Your task to perform on an android device: Check the news Image 0: 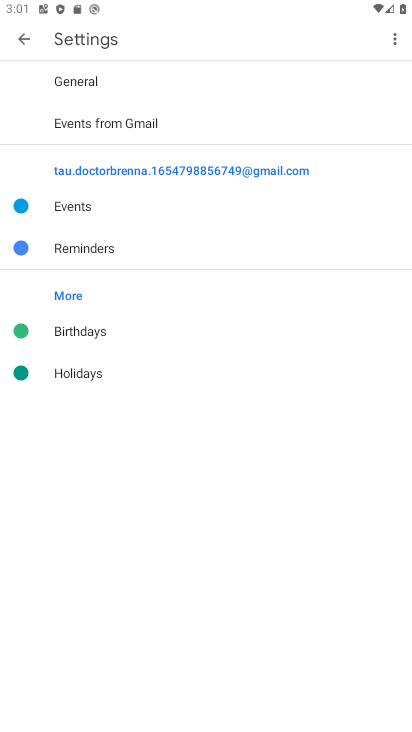
Step 0: press home button
Your task to perform on an android device: Check the news Image 1: 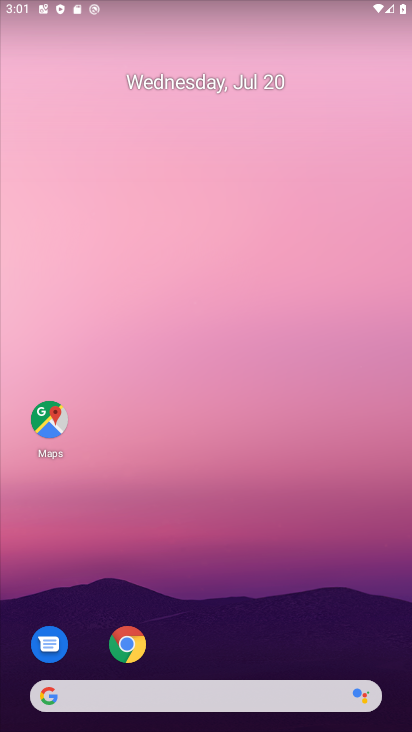
Step 1: drag from (207, 698) to (257, 215)
Your task to perform on an android device: Check the news Image 2: 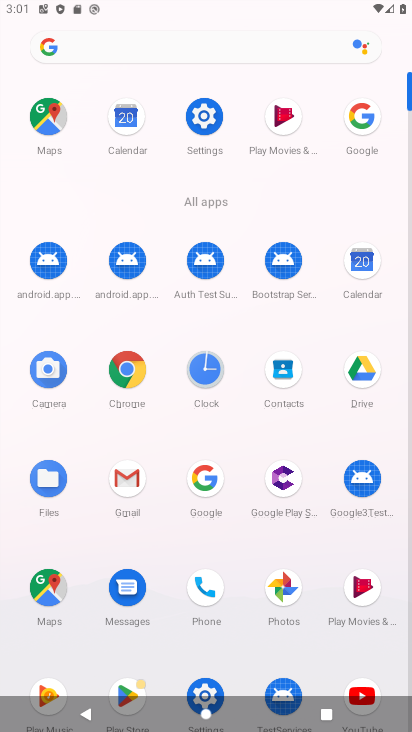
Step 2: click (209, 475)
Your task to perform on an android device: Check the news Image 3: 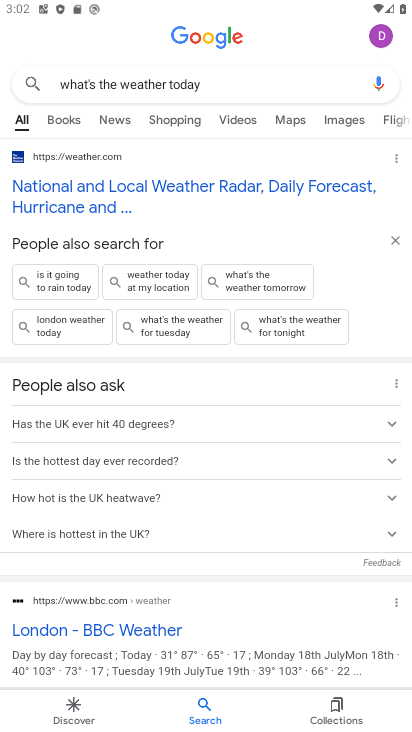
Step 3: click (212, 77)
Your task to perform on an android device: Check the news Image 4: 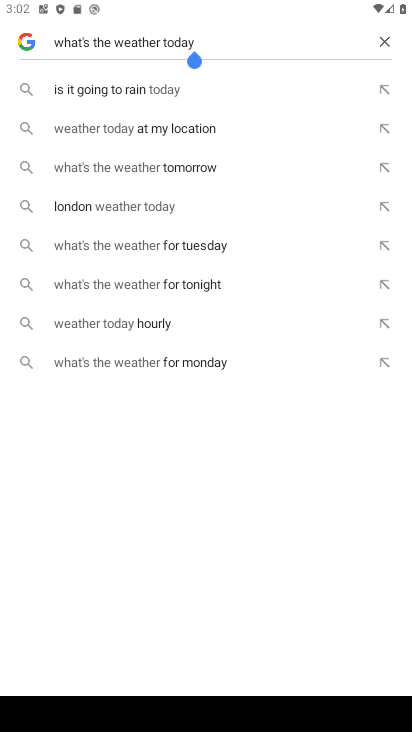
Step 4: click (387, 46)
Your task to perform on an android device: Check the news Image 5: 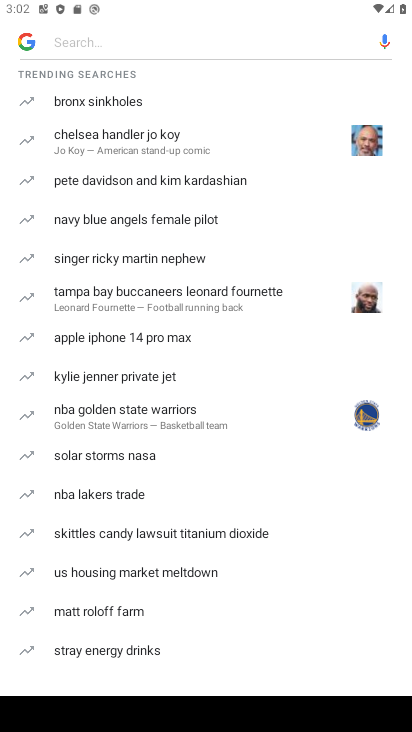
Step 5: drag from (142, 598) to (142, 200)
Your task to perform on an android device: Check the news Image 6: 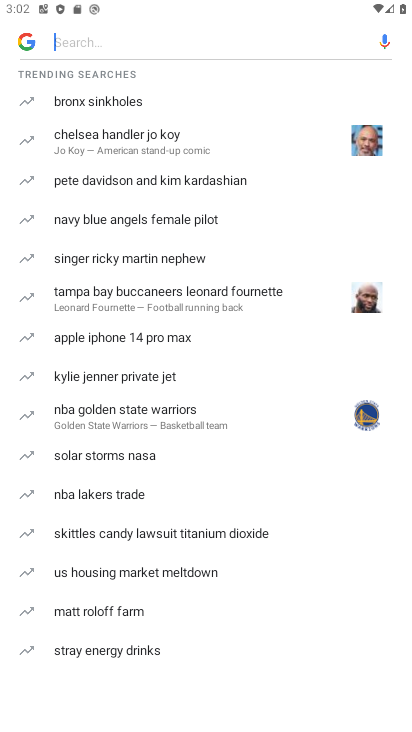
Step 6: type "Check the news"
Your task to perform on an android device: Check the news Image 7: 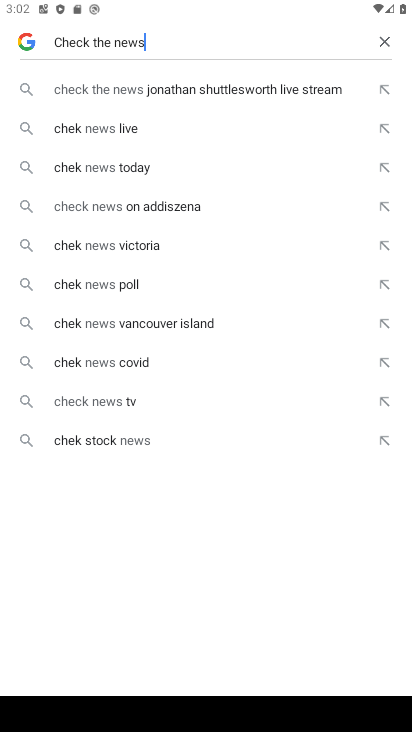
Step 7: click (111, 164)
Your task to perform on an android device: Check the news Image 8: 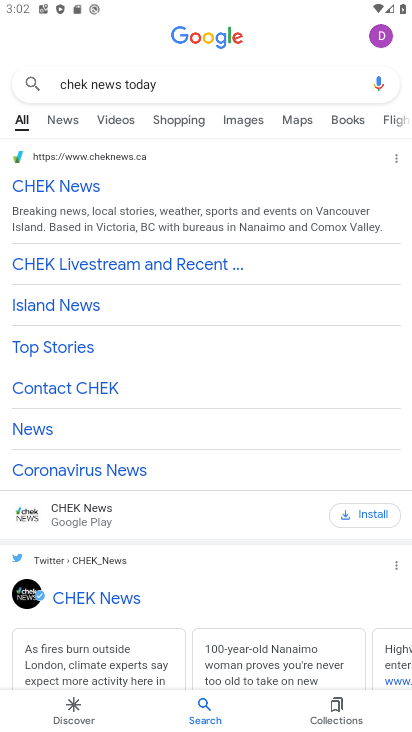
Step 8: click (47, 194)
Your task to perform on an android device: Check the news Image 9: 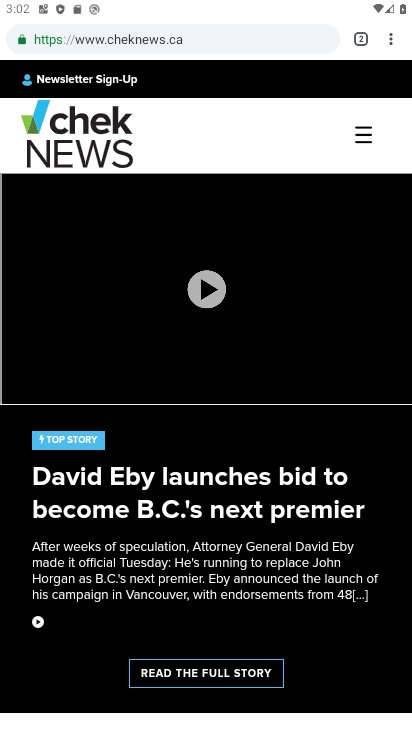
Step 9: drag from (228, 628) to (216, 351)
Your task to perform on an android device: Check the news Image 10: 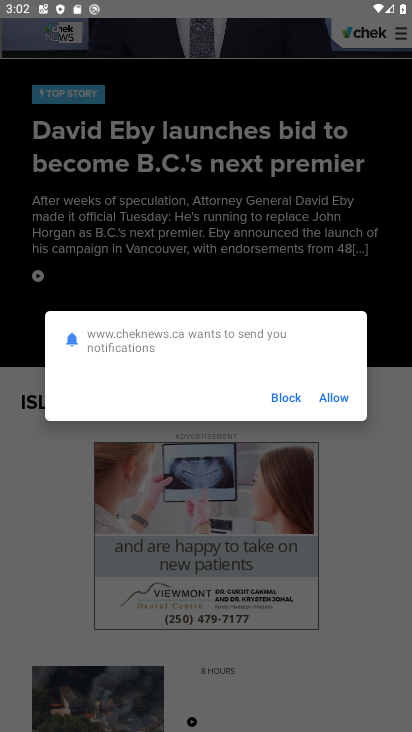
Step 10: click (282, 396)
Your task to perform on an android device: Check the news Image 11: 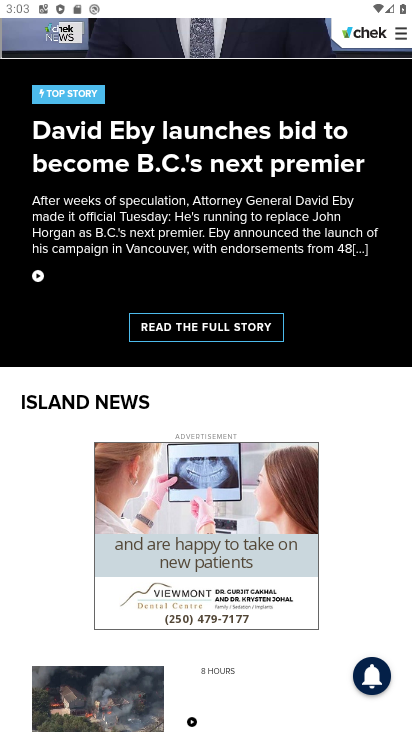
Step 11: task complete